Your task to perform on an android device: turn off improve location accuracy Image 0: 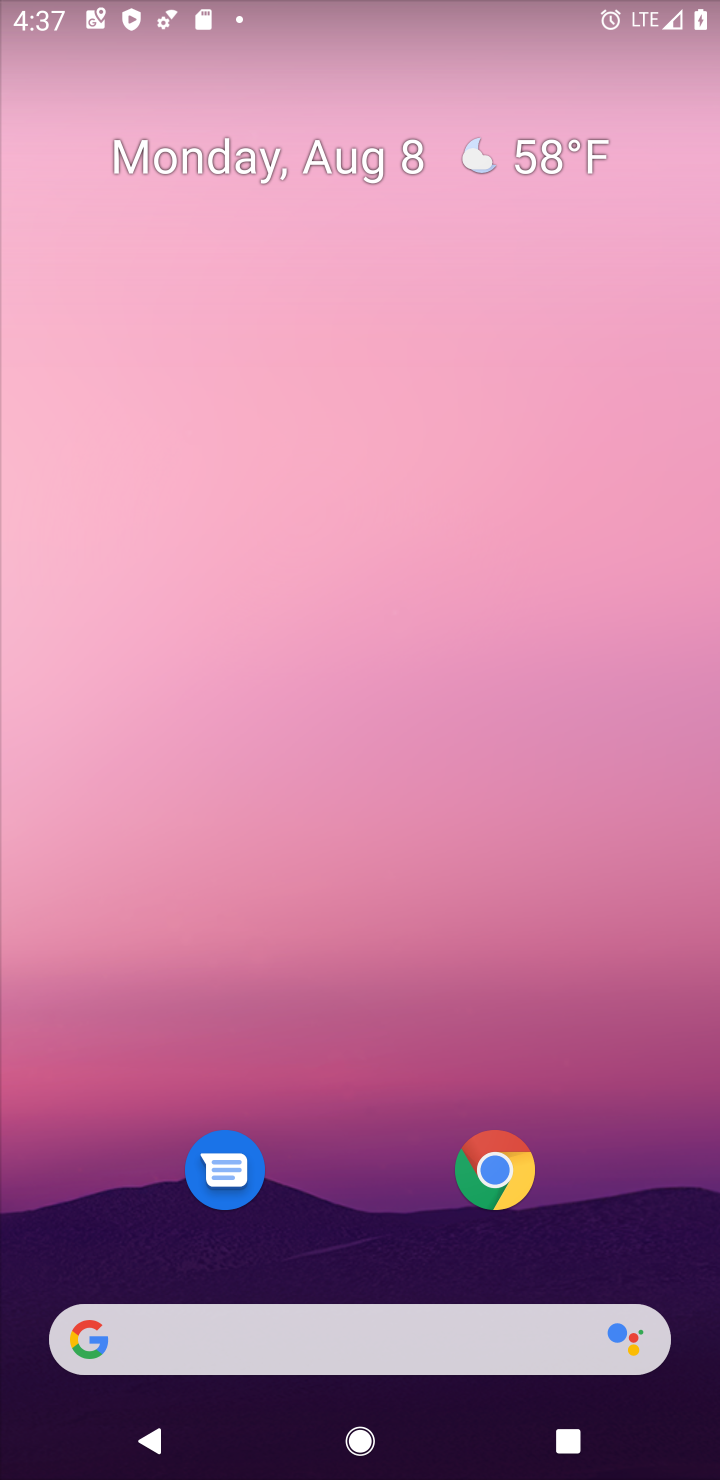
Step 0: drag from (360, 625) to (360, 152)
Your task to perform on an android device: turn off improve location accuracy Image 1: 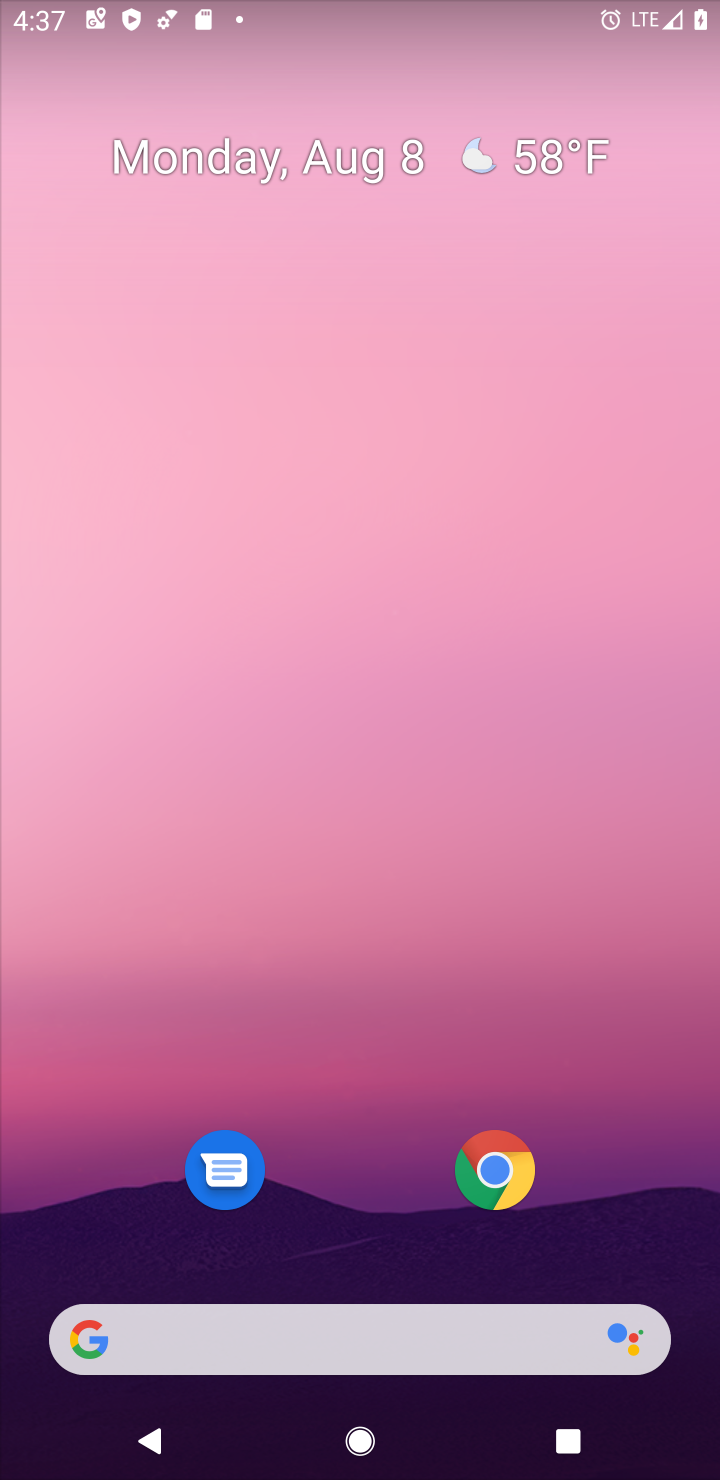
Step 1: drag from (314, 815) to (314, 250)
Your task to perform on an android device: turn off improve location accuracy Image 2: 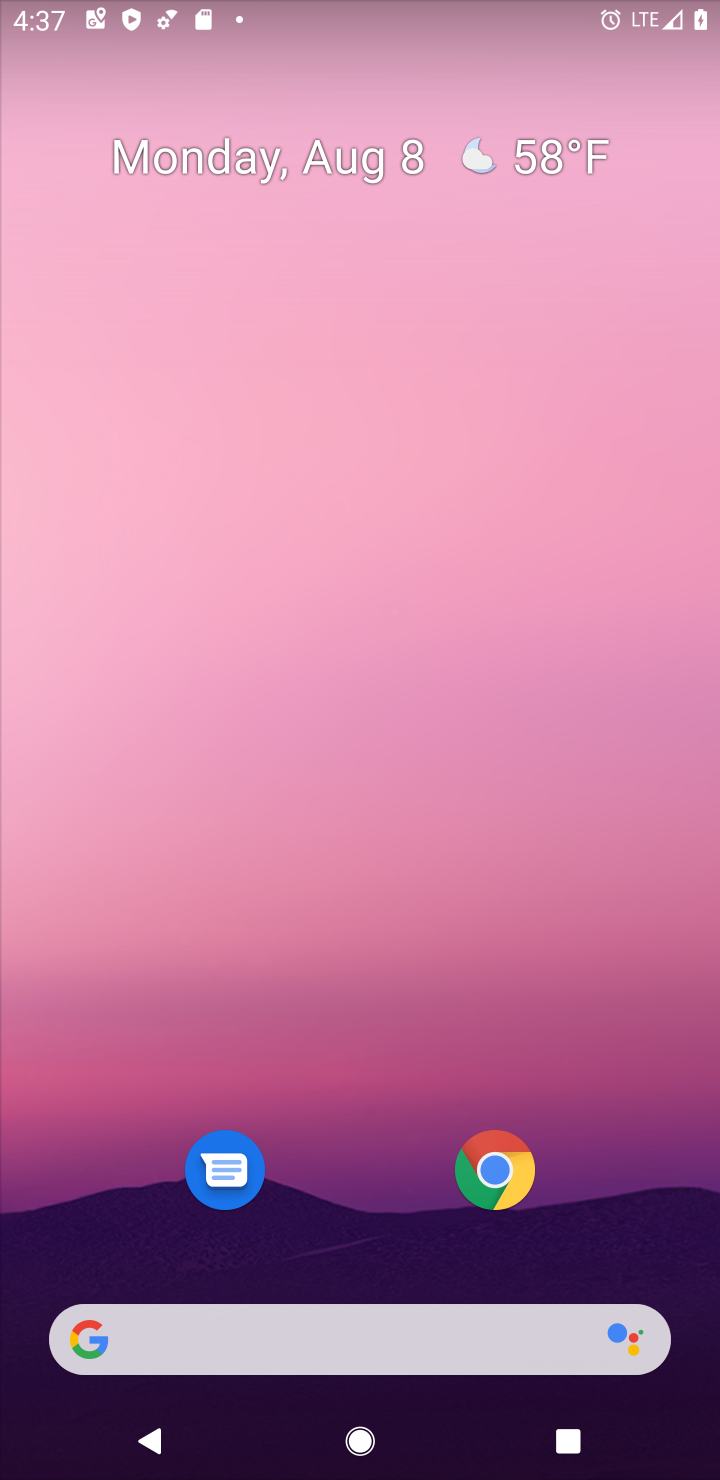
Step 2: drag from (342, 645) to (342, 211)
Your task to perform on an android device: turn off improve location accuracy Image 3: 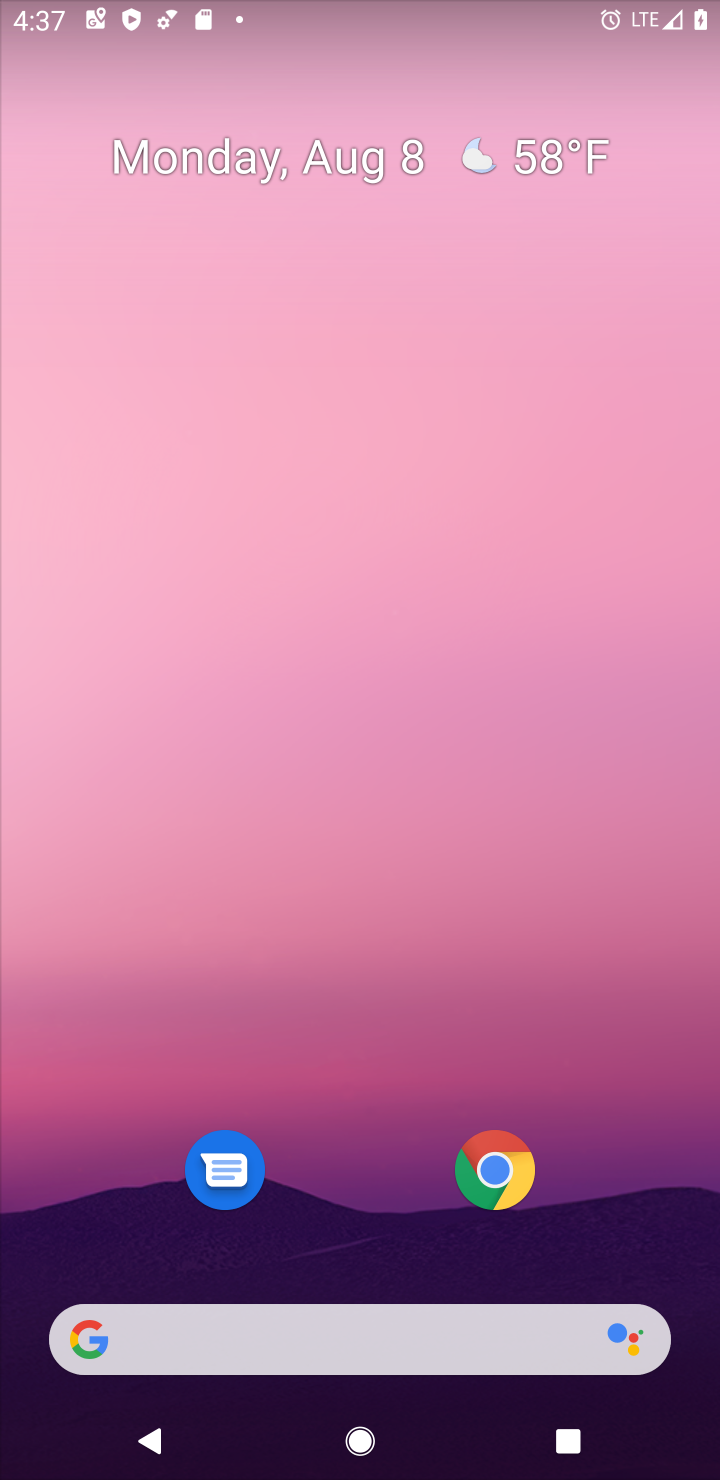
Step 3: drag from (331, 979) to (331, 392)
Your task to perform on an android device: turn off improve location accuracy Image 4: 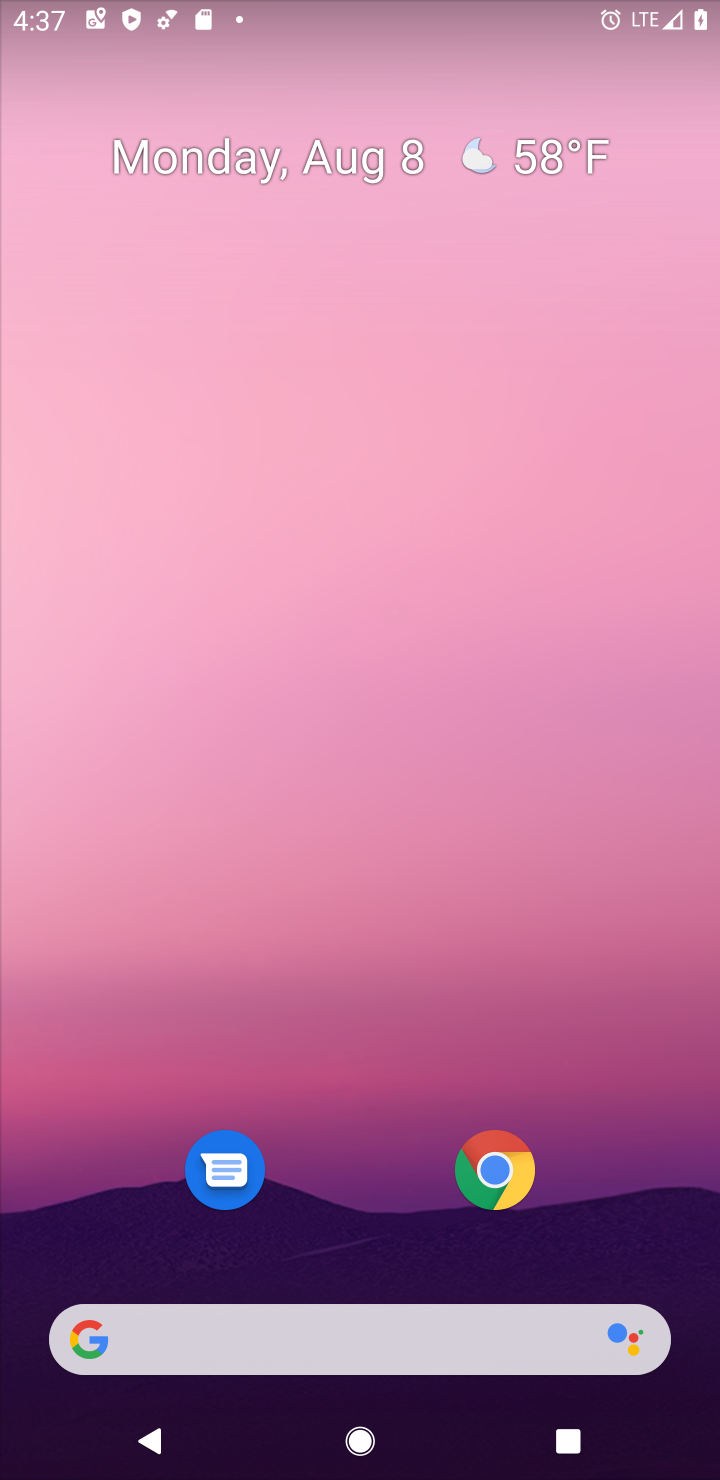
Step 4: drag from (338, 745) to (277, 2)
Your task to perform on an android device: turn off improve location accuracy Image 5: 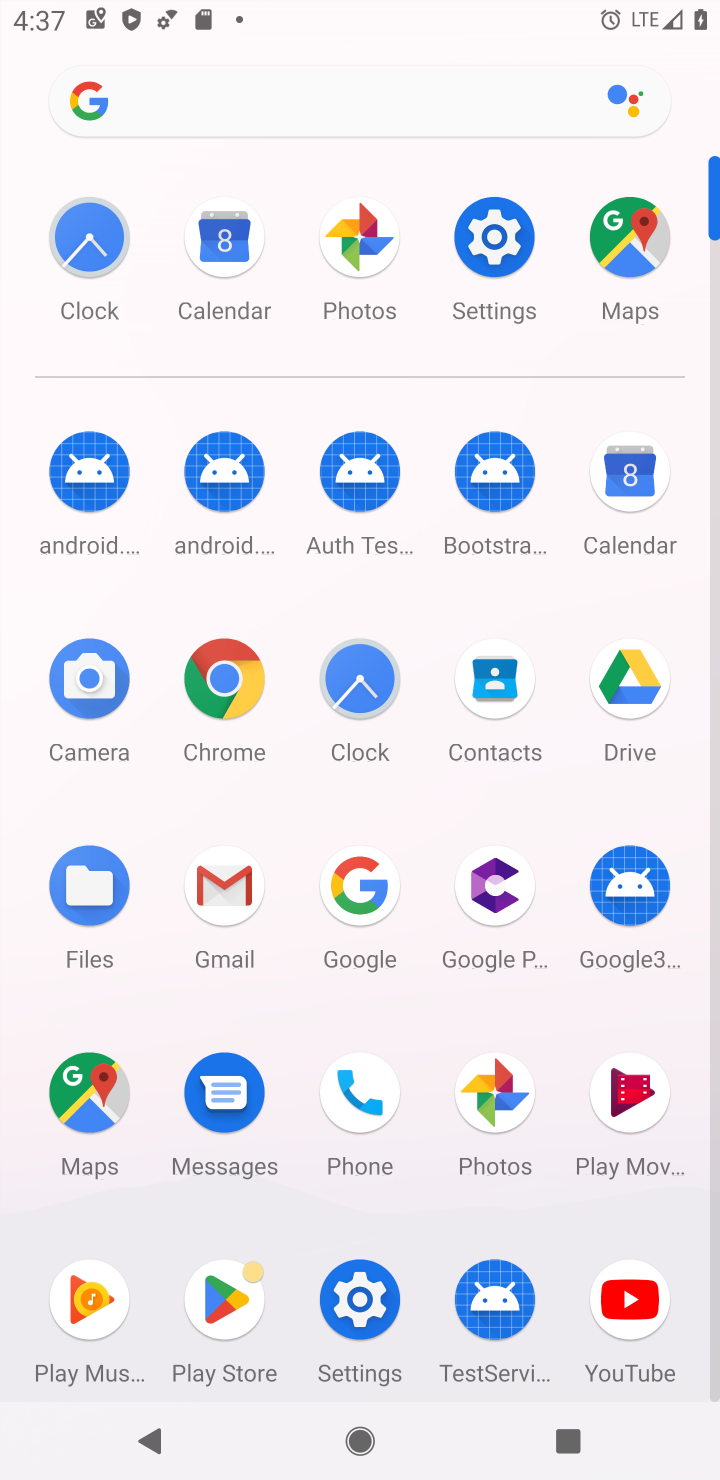
Step 5: click (482, 260)
Your task to perform on an android device: turn off improve location accuracy Image 6: 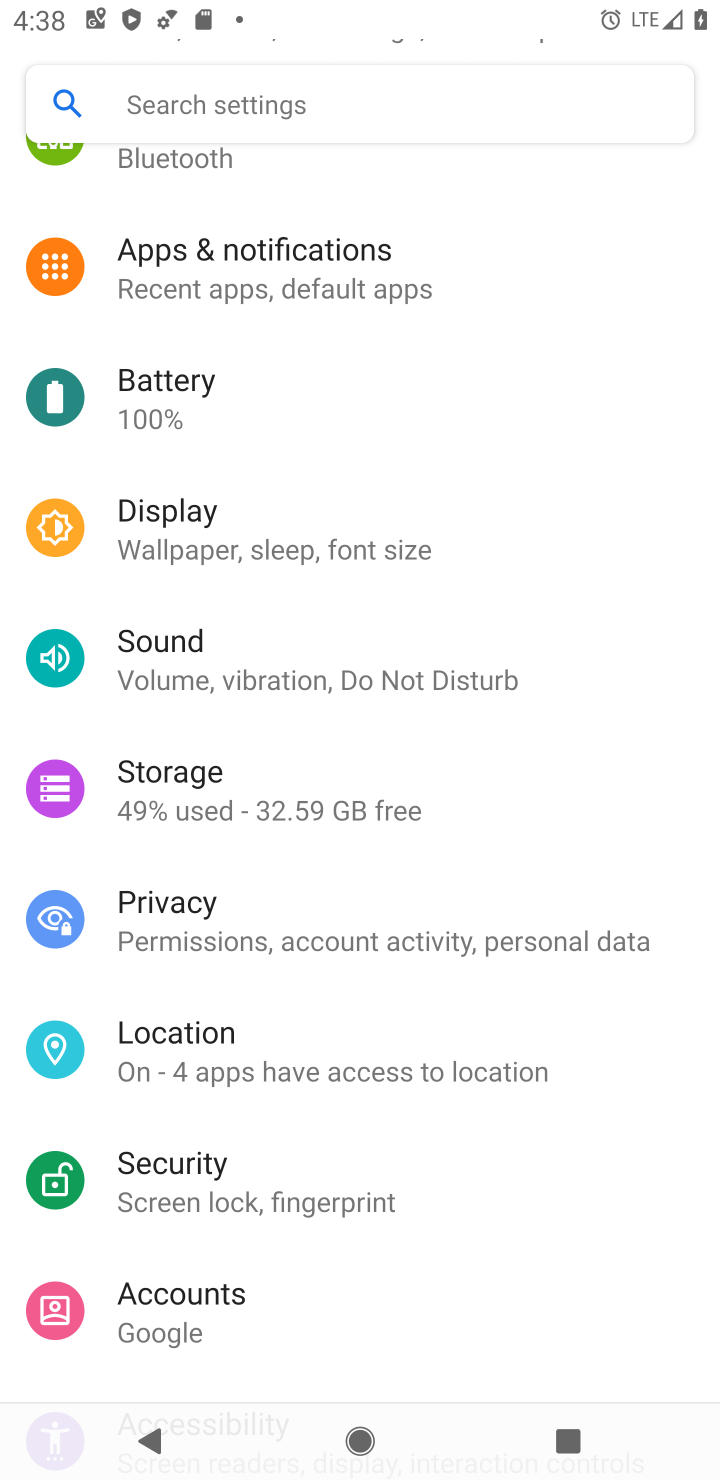
Step 6: click (274, 1065)
Your task to perform on an android device: turn off improve location accuracy Image 7: 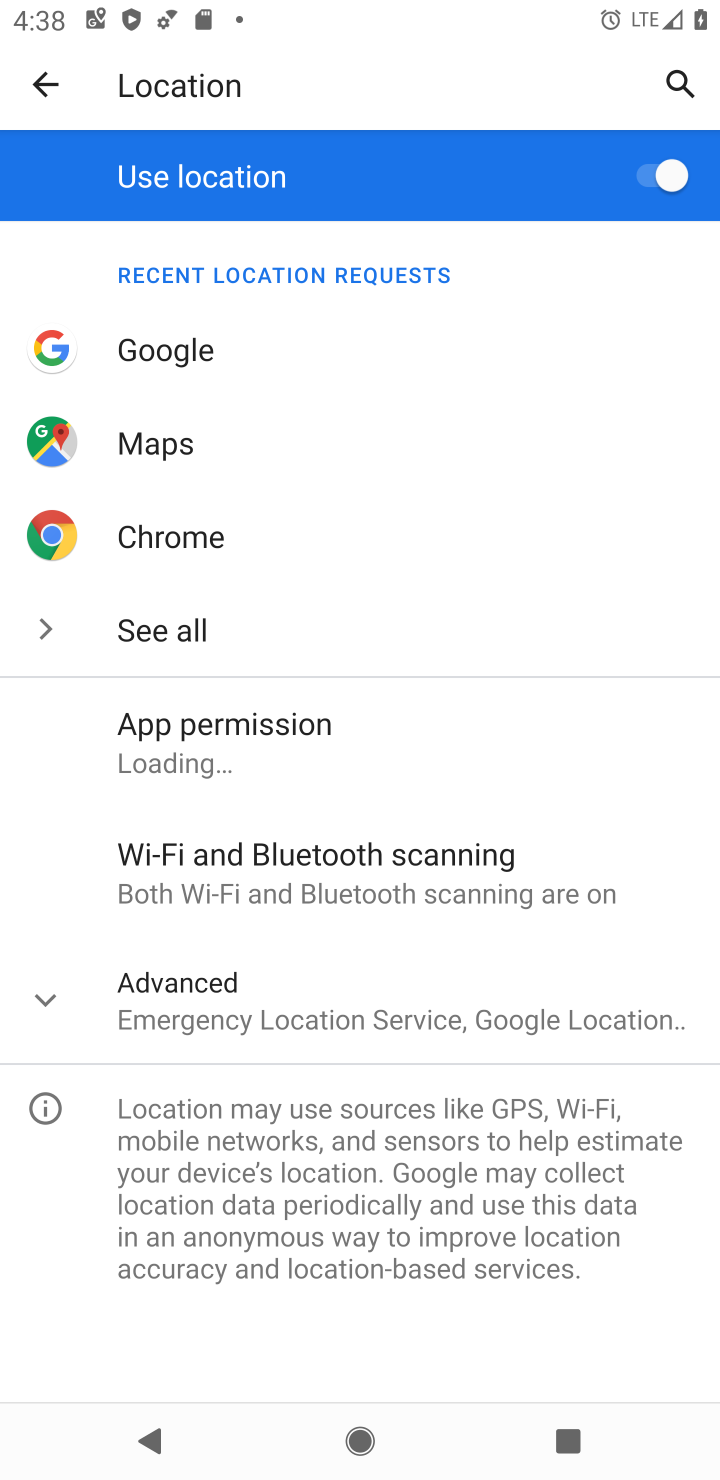
Step 7: click (249, 1004)
Your task to perform on an android device: turn off improve location accuracy Image 8: 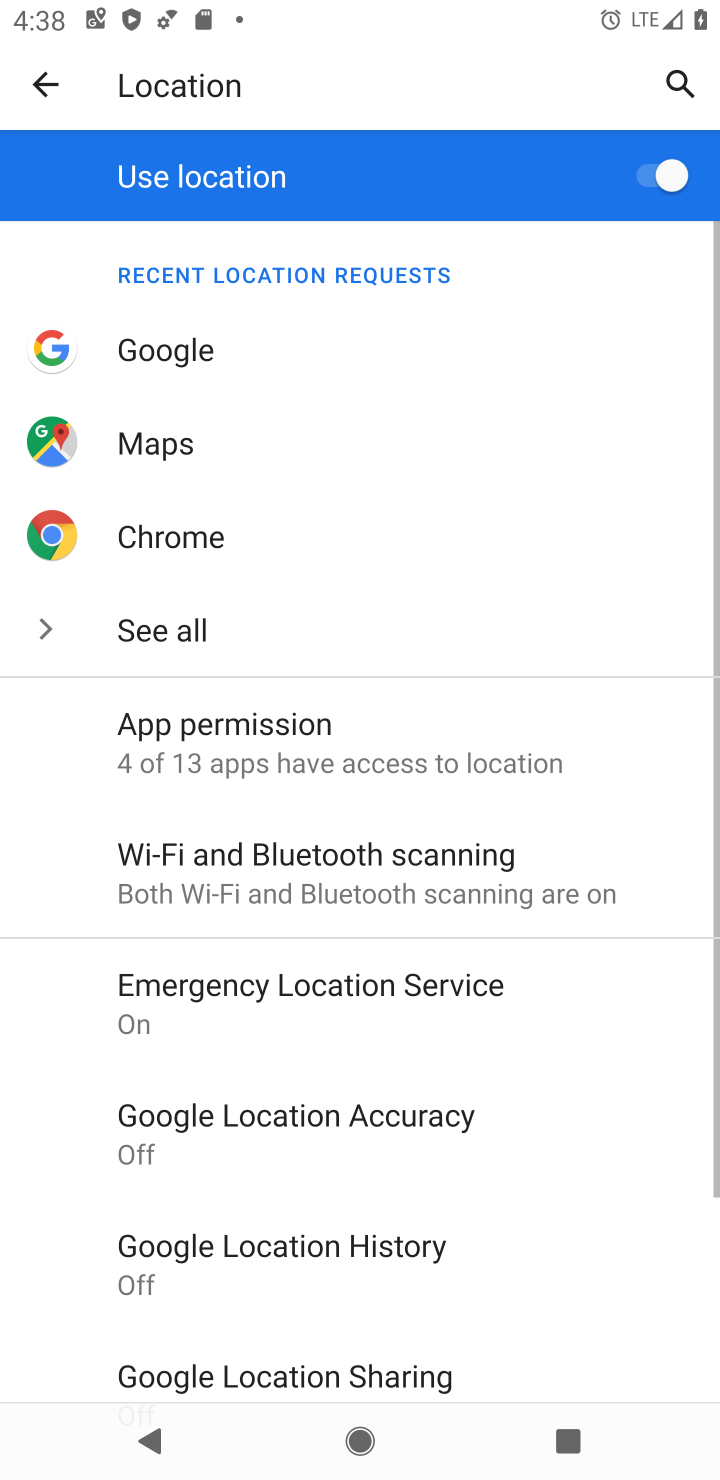
Step 8: click (470, 1090)
Your task to perform on an android device: turn off improve location accuracy Image 9: 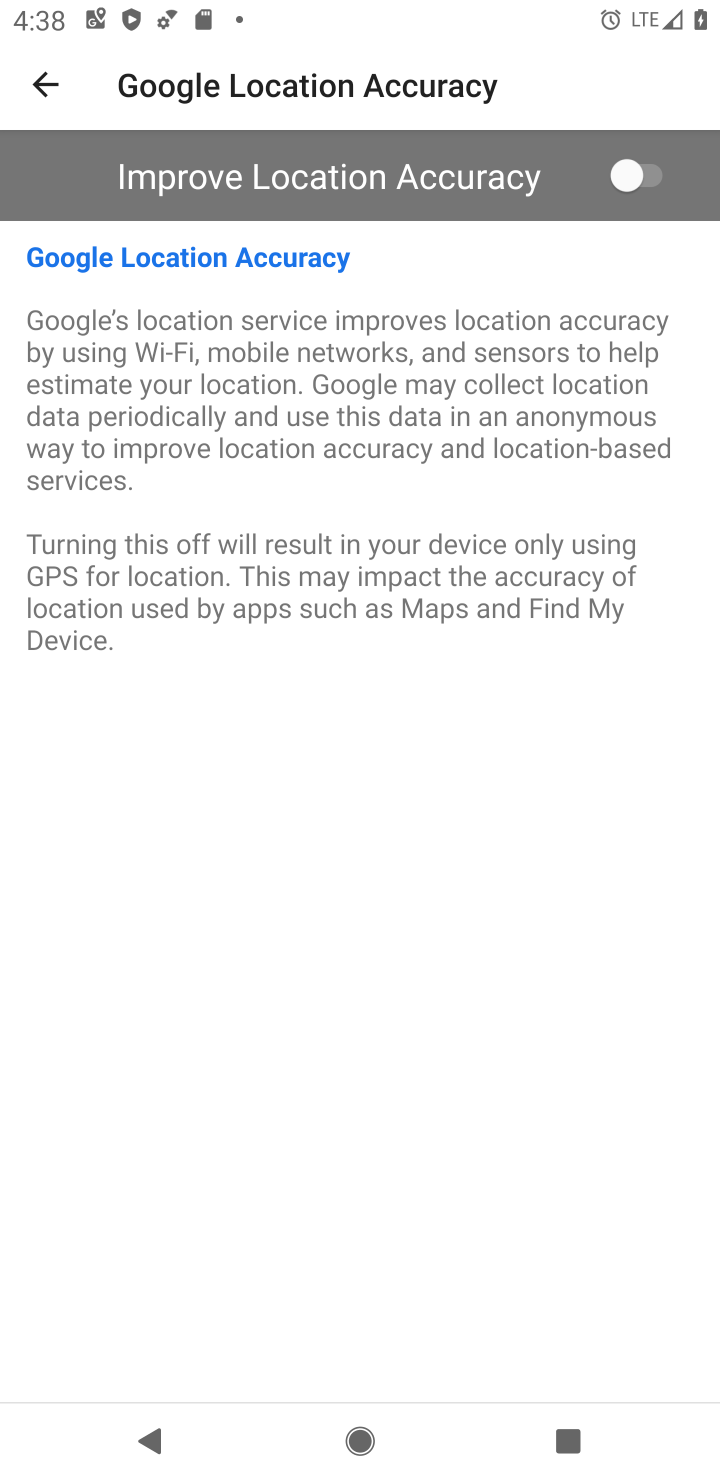
Step 9: task complete